Your task to perform on an android device: add a contact Image 0: 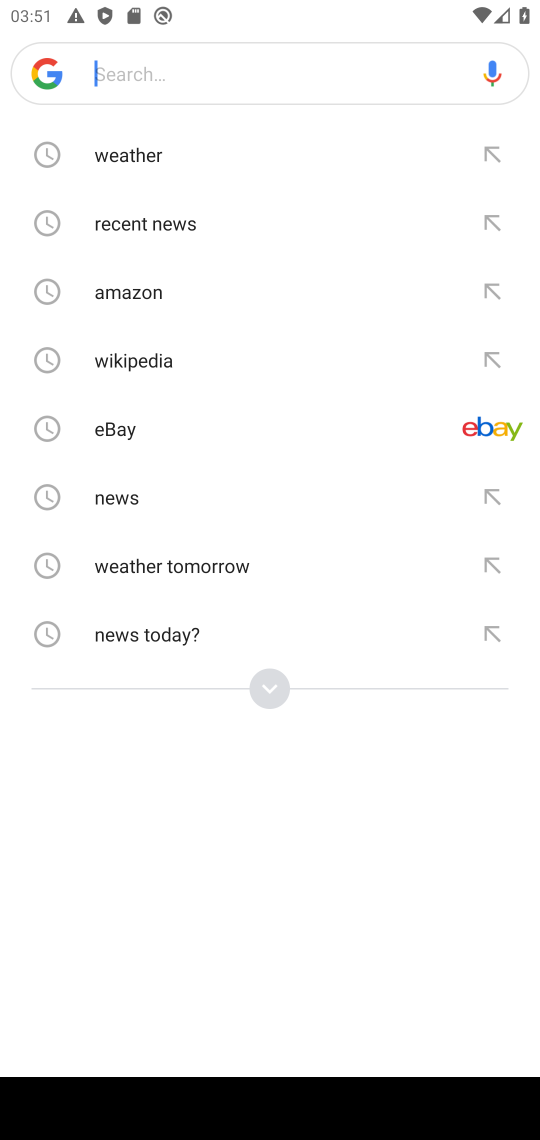
Step 0: press home button
Your task to perform on an android device: add a contact Image 1: 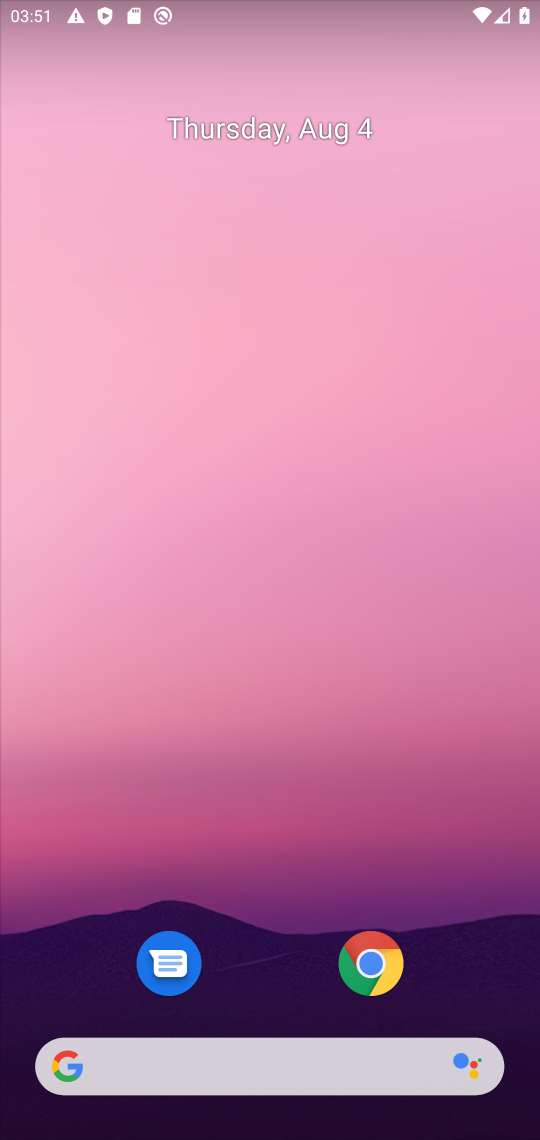
Step 1: drag from (278, 996) to (314, 181)
Your task to perform on an android device: add a contact Image 2: 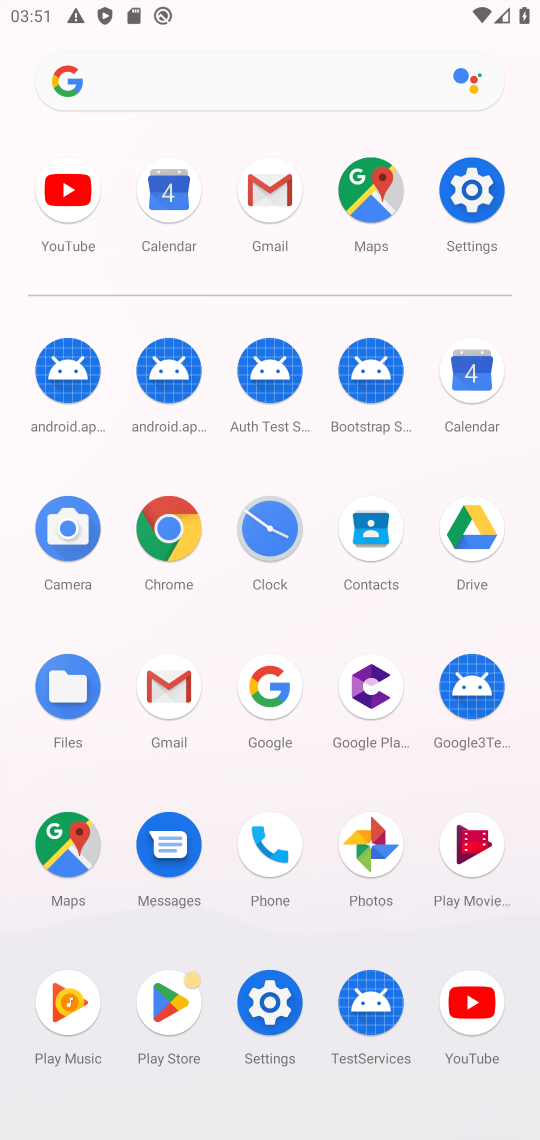
Step 2: click (367, 547)
Your task to perform on an android device: add a contact Image 3: 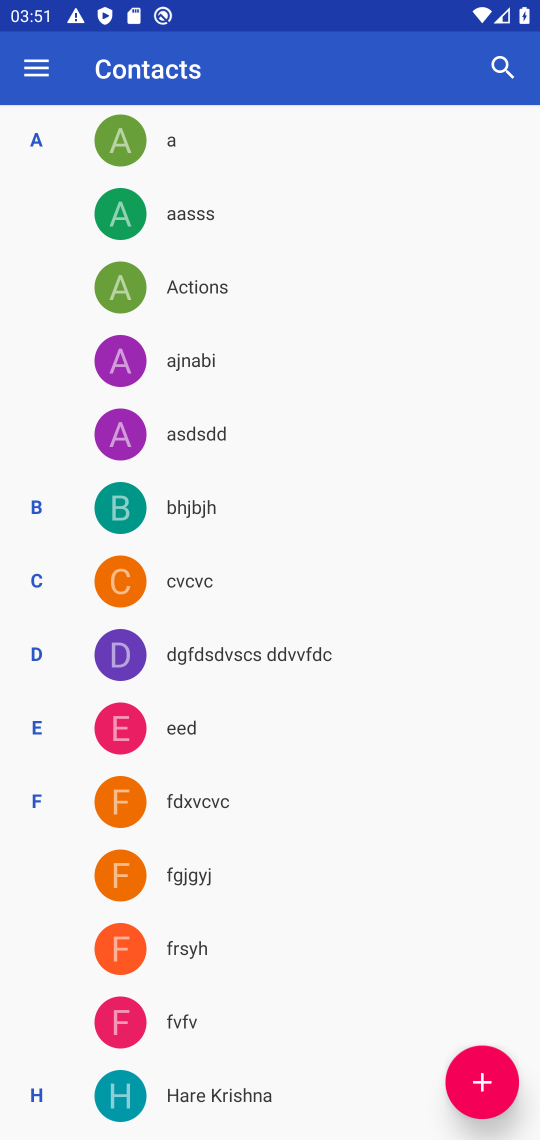
Step 3: click (499, 1075)
Your task to perform on an android device: add a contact Image 4: 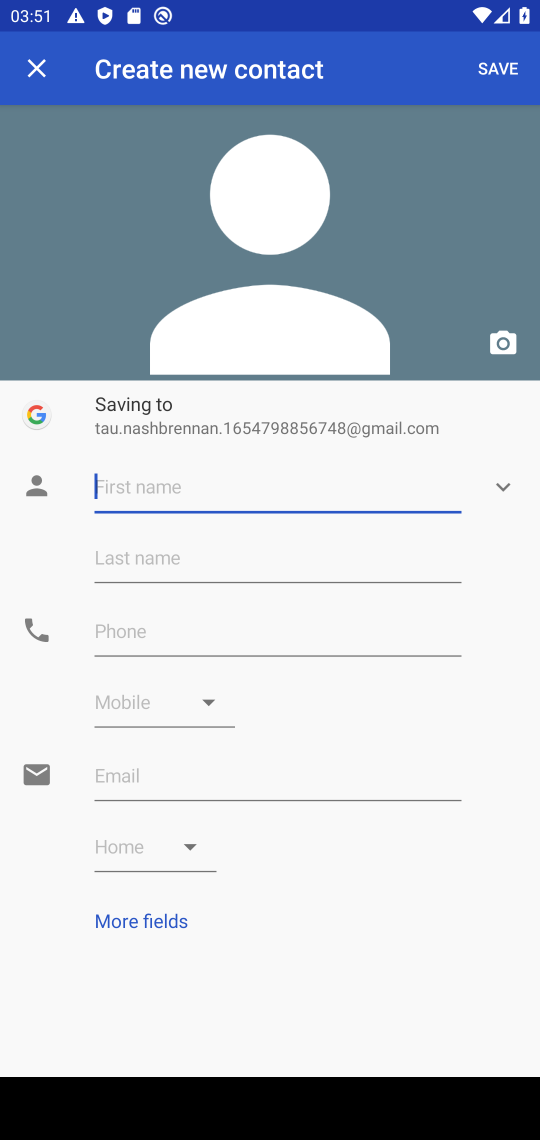
Step 4: type "nikki"
Your task to perform on an android device: add a contact Image 5: 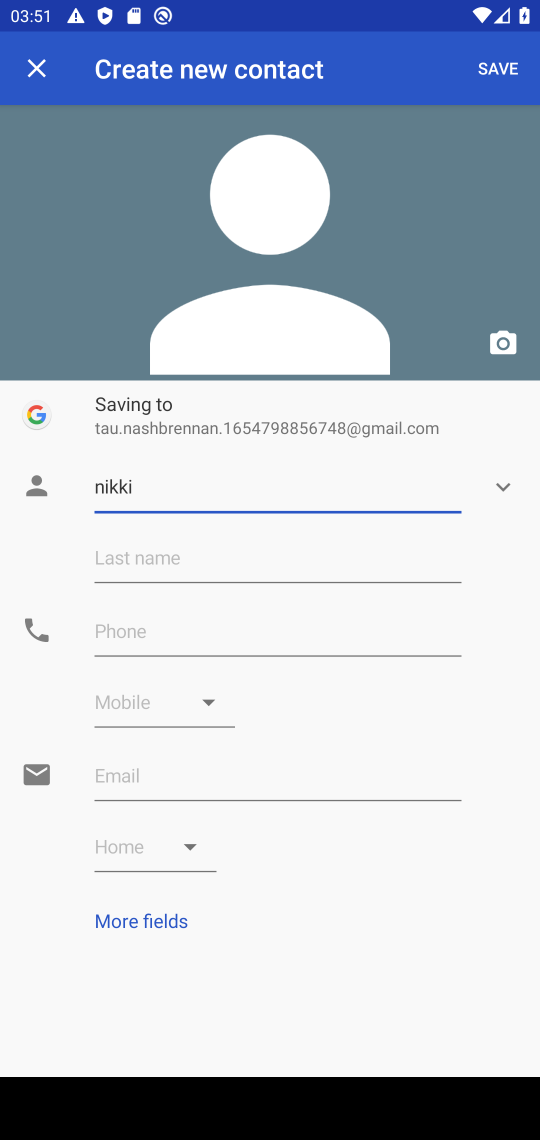
Step 5: click (216, 649)
Your task to perform on an android device: add a contact Image 6: 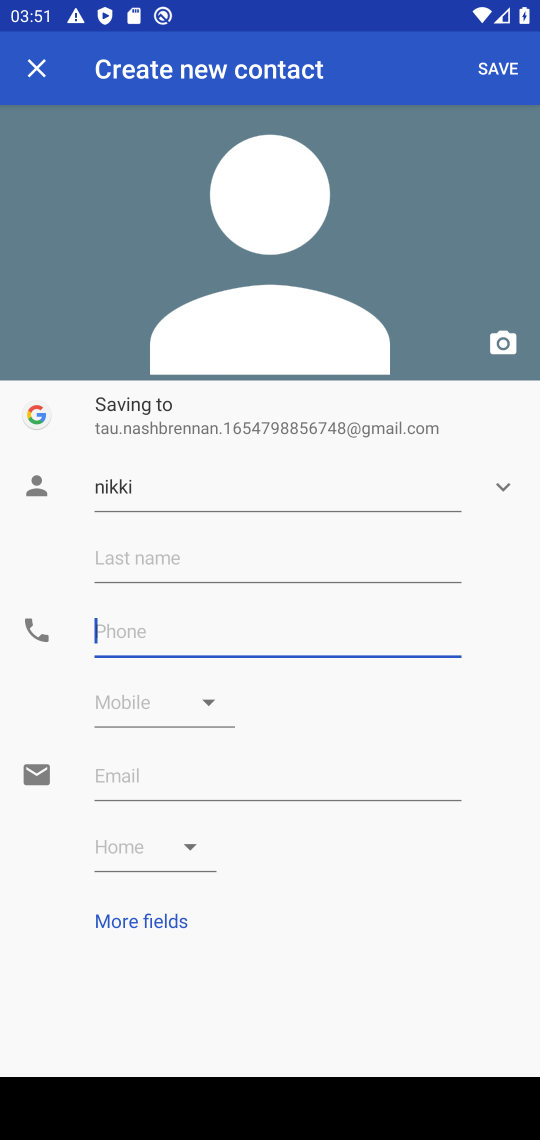
Step 6: type "7687656787"
Your task to perform on an android device: add a contact Image 7: 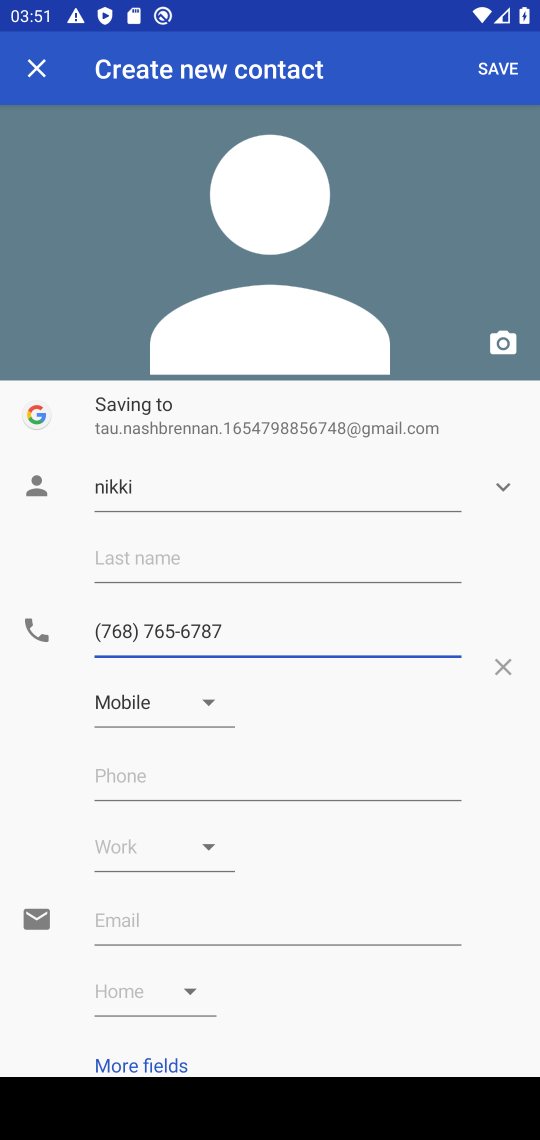
Step 7: click (495, 69)
Your task to perform on an android device: add a contact Image 8: 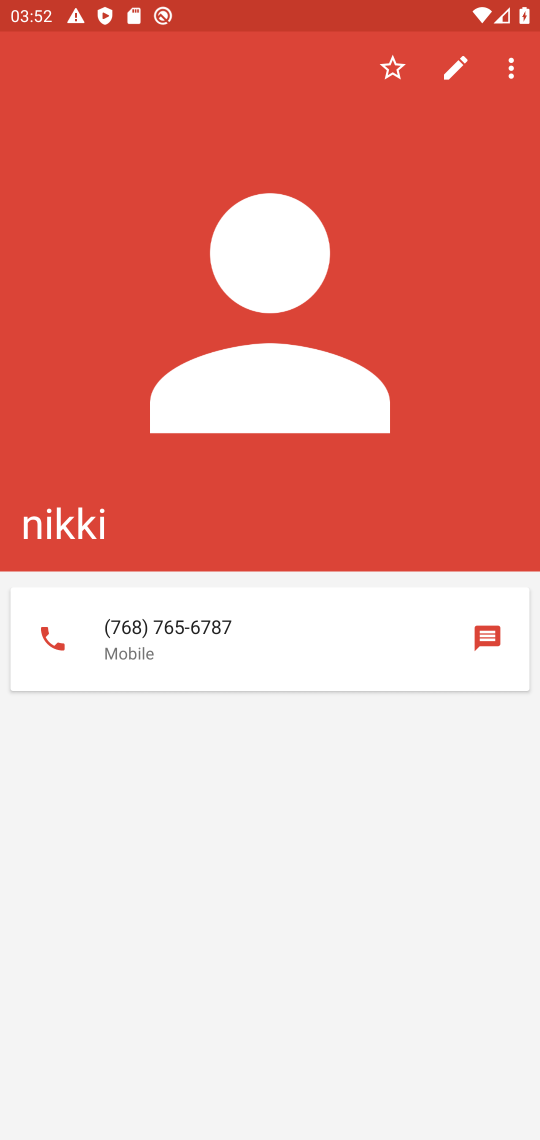
Step 8: task complete